Your task to perform on an android device: Open calendar and show me the fourth week of next month Image 0: 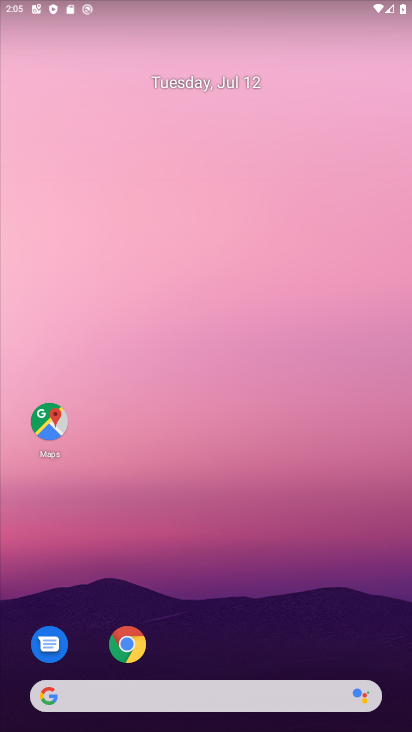
Step 0: drag from (179, 662) to (147, 103)
Your task to perform on an android device: Open calendar and show me the fourth week of next month Image 1: 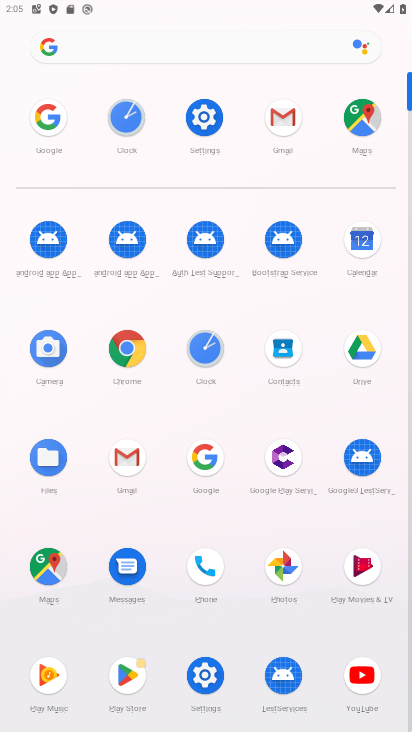
Step 1: click (363, 255)
Your task to perform on an android device: Open calendar and show me the fourth week of next month Image 2: 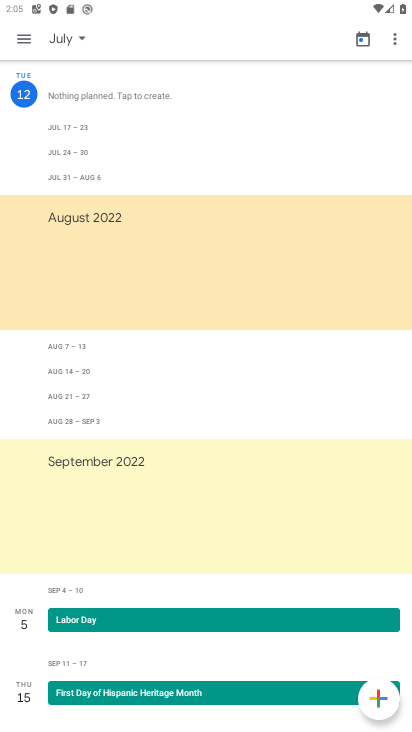
Step 2: click (26, 30)
Your task to perform on an android device: Open calendar and show me the fourth week of next month Image 3: 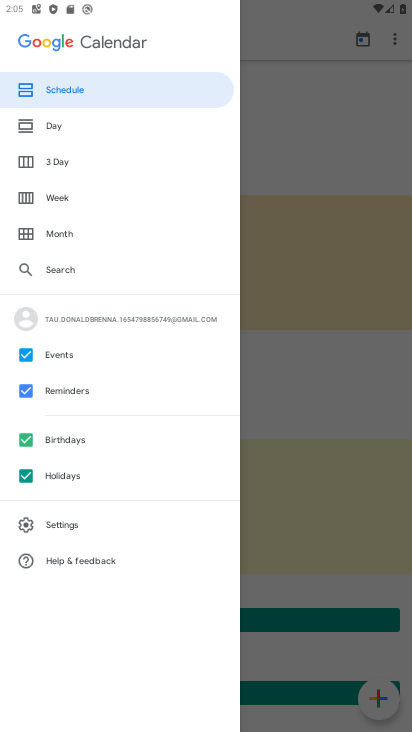
Step 3: click (66, 192)
Your task to perform on an android device: Open calendar and show me the fourth week of next month Image 4: 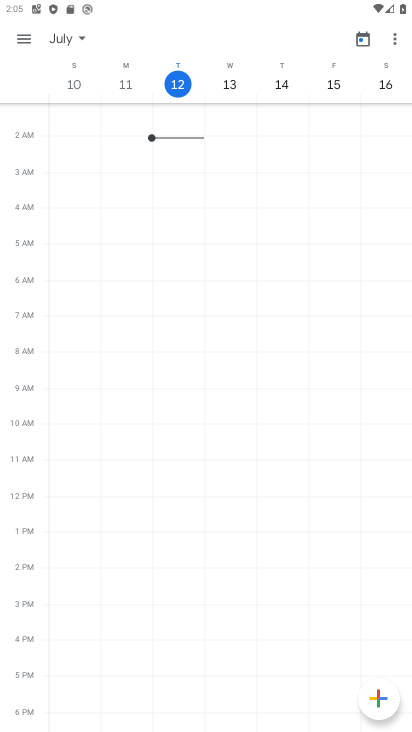
Step 4: task complete